Your task to perform on an android device: create a new album in the google photos Image 0: 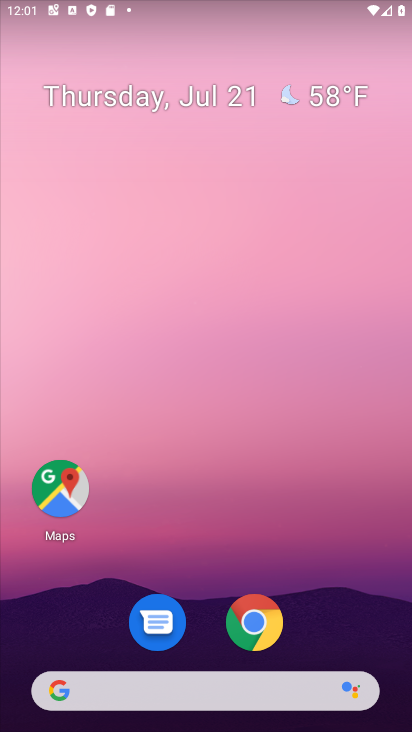
Step 0: drag from (27, 708) to (287, 139)
Your task to perform on an android device: create a new album in the google photos Image 1: 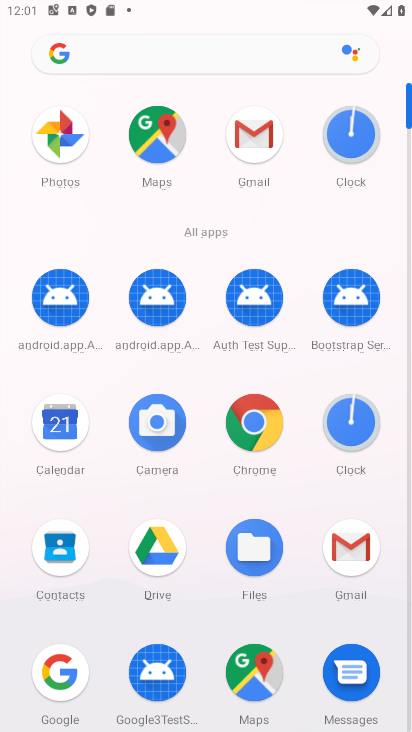
Step 1: drag from (182, 524) to (287, 39)
Your task to perform on an android device: create a new album in the google photos Image 2: 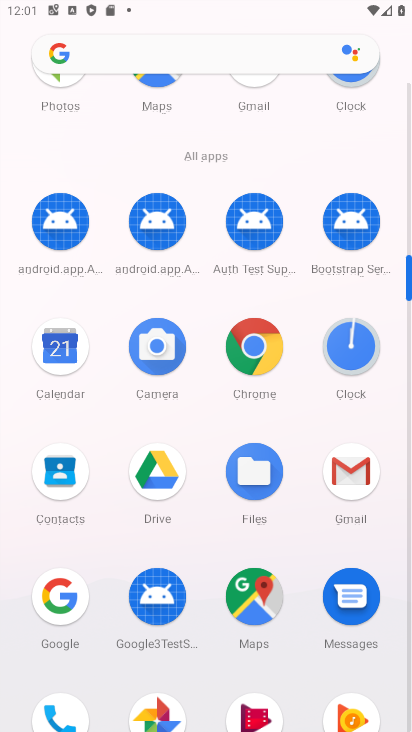
Step 2: drag from (205, 578) to (222, 431)
Your task to perform on an android device: create a new album in the google photos Image 3: 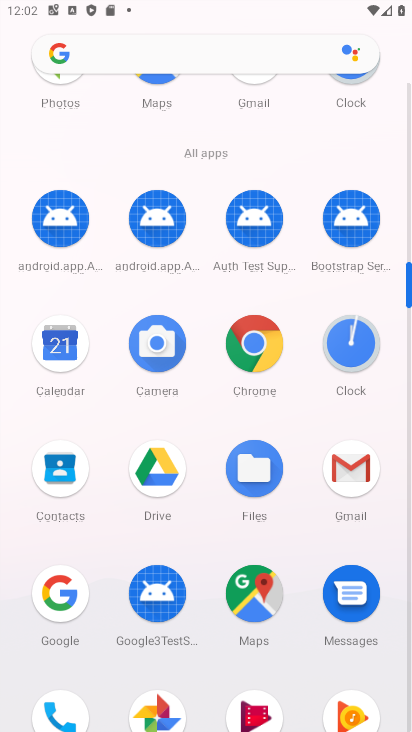
Step 3: click (163, 716)
Your task to perform on an android device: create a new album in the google photos Image 4: 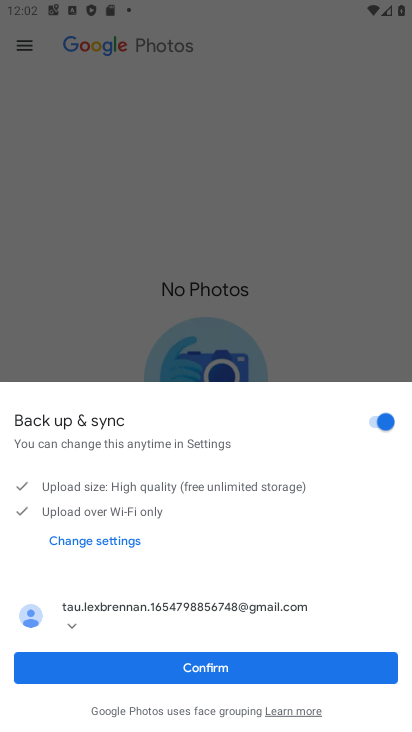
Step 4: click (158, 662)
Your task to perform on an android device: create a new album in the google photos Image 5: 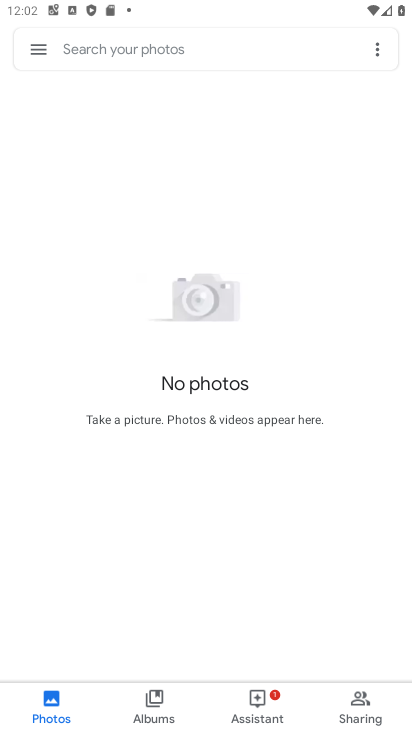
Step 5: click (139, 713)
Your task to perform on an android device: create a new album in the google photos Image 6: 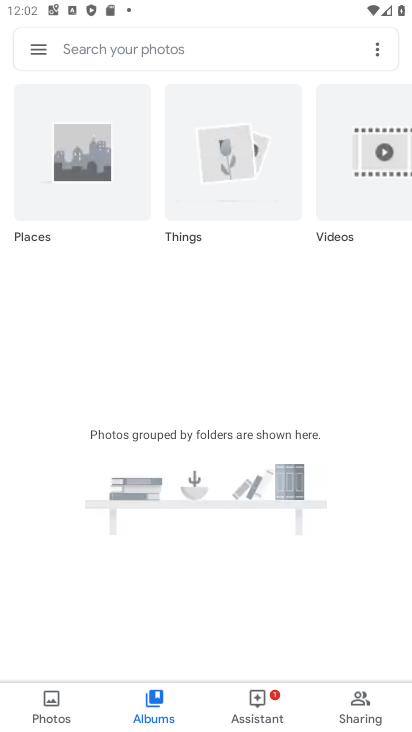
Step 6: task complete